Your task to perform on an android device: Show me the alarms in the clock app Image 0: 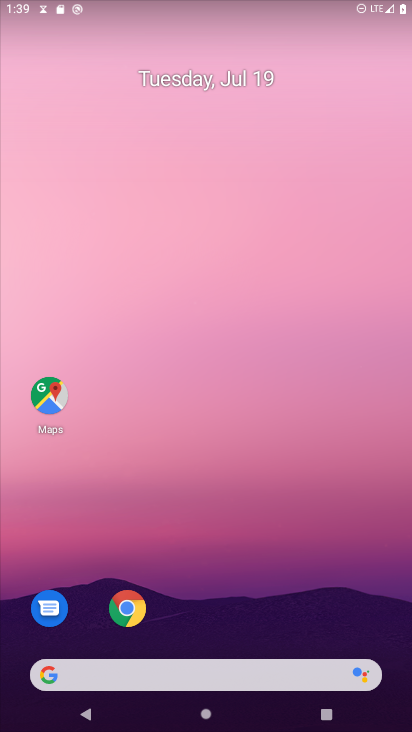
Step 0: drag from (215, 587) to (345, 14)
Your task to perform on an android device: Show me the alarms in the clock app Image 1: 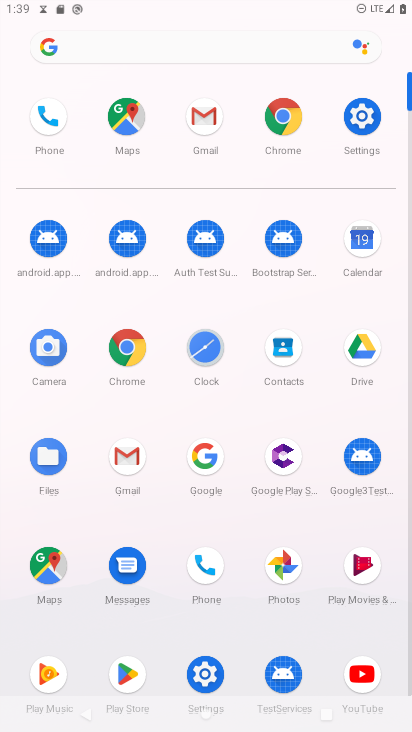
Step 1: click (209, 350)
Your task to perform on an android device: Show me the alarms in the clock app Image 2: 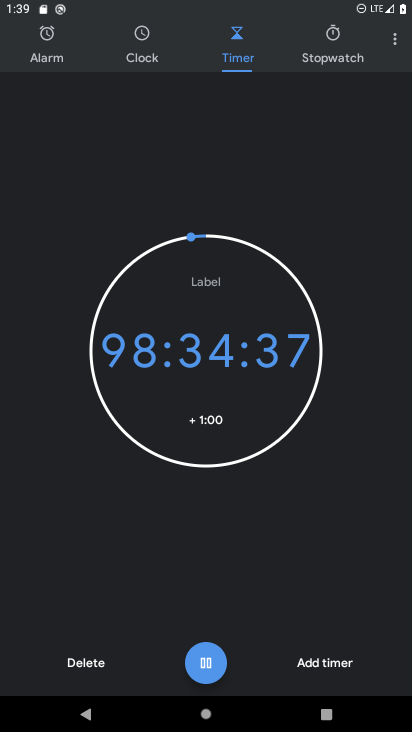
Step 2: click (45, 48)
Your task to perform on an android device: Show me the alarms in the clock app Image 3: 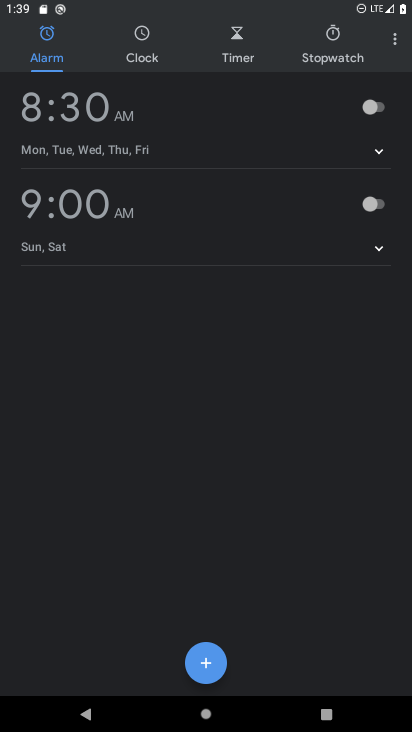
Step 3: task complete